Your task to perform on an android device: Go to CNN.com Image 0: 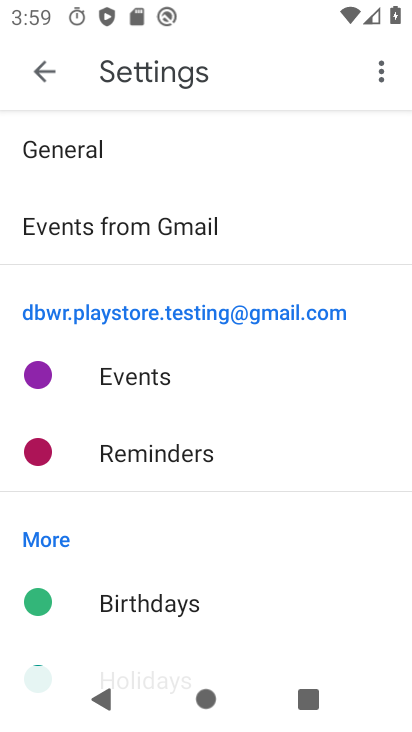
Step 0: press back button
Your task to perform on an android device: Go to CNN.com Image 1: 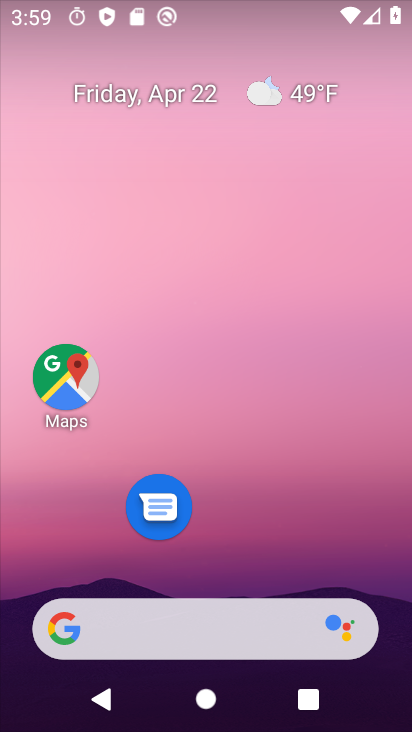
Step 1: drag from (246, 511) to (330, 56)
Your task to perform on an android device: Go to CNN.com Image 2: 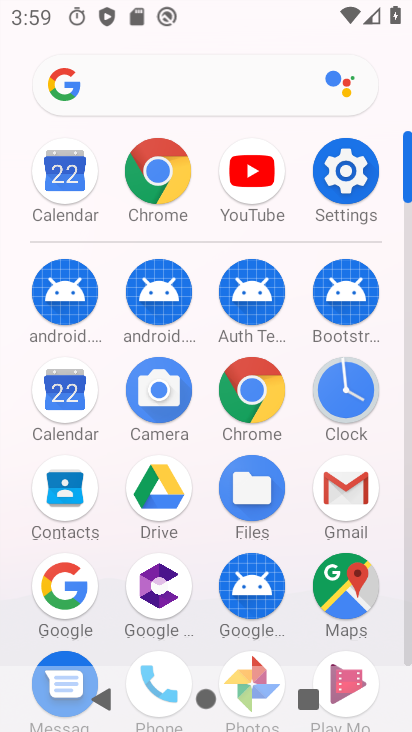
Step 2: click (164, 167)
Your task to perform on an android device: Go to CNN.com Image 3: 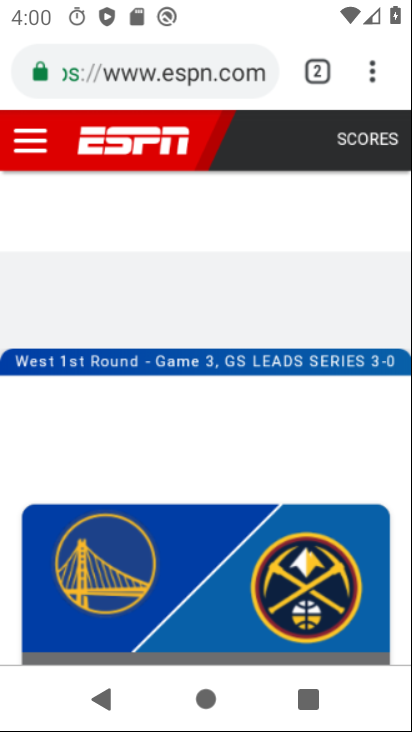
Step 3: click (322, 73)
Your task to perform on an android device: Go to CNN.com Image 4: 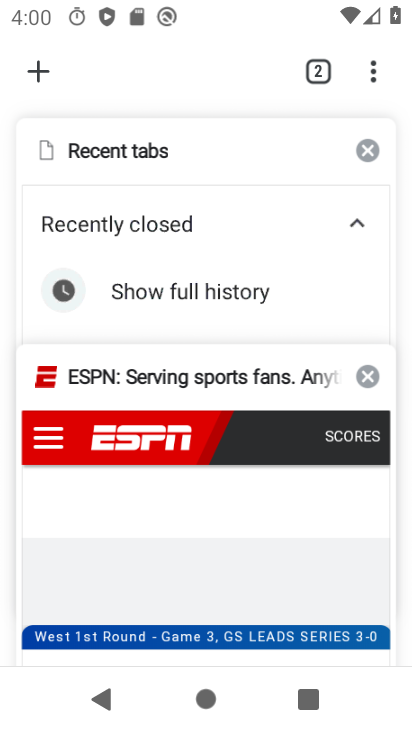
Step 4: click (38, 69)
Your task to perform on an android device: Go to CNN.com Image 5: 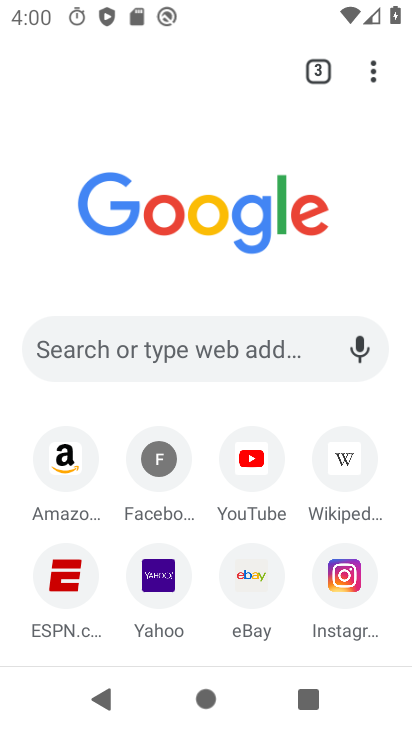
Step 5: click (145, 333)
Your task to perform on an android device: Go to CNN.com Image 6: 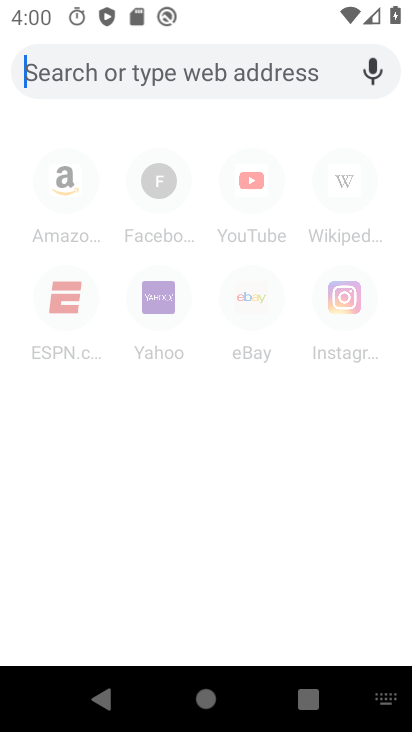
Step 6: type "cnn.com"
Your task to perform on an android device: Go to CNN.com Image 7: 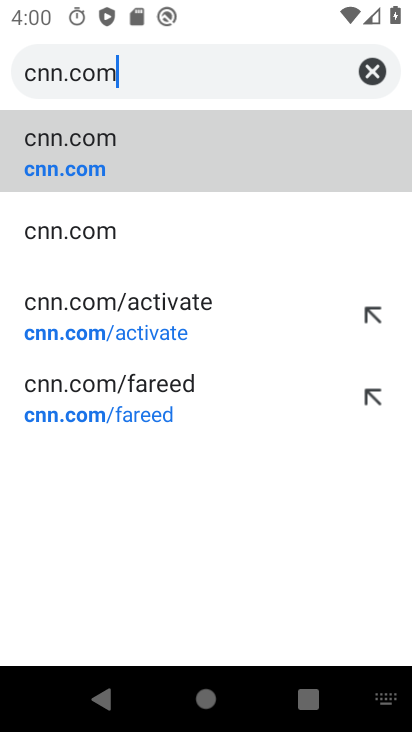
Step 7: click (122, 152)
Your task to perform on an android device: Go to CNN.com Image 8: 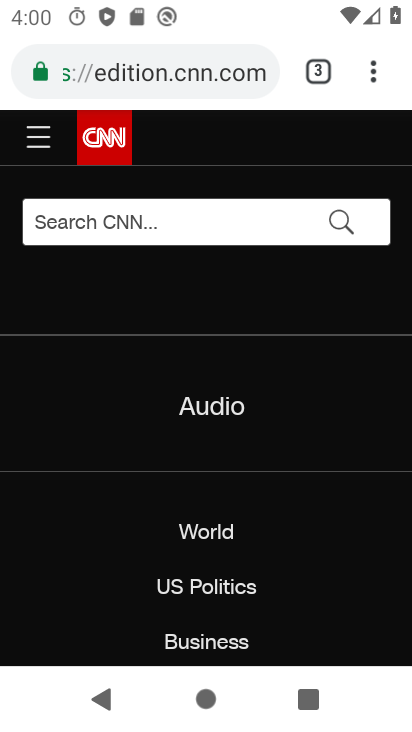
Step 8: task complete